Your task to perform on an android device: Go to eBay Image 0: 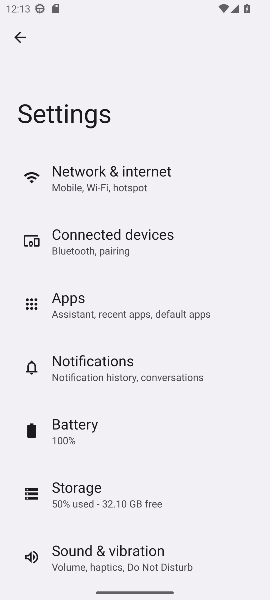
Step 0: press home button
Your task to perform on an android device: Go to eBay Image 1: 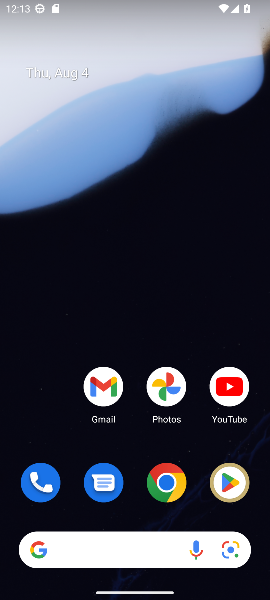
Step 1: click (181, 479)
Your task to perform on an android device: Go to eBay Image 2: 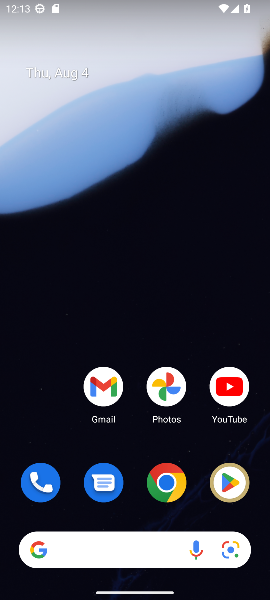
Step 2: click (181, 479)
Your task to perform on an android device: Go to eBay Image 3: 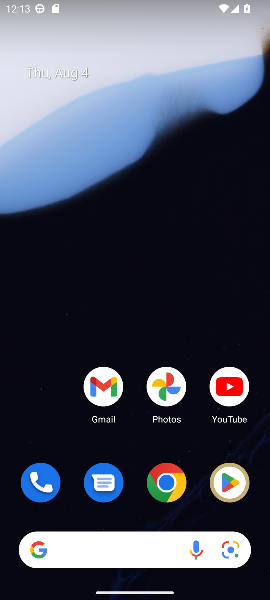
Step 3: click (167, 489)
Your task to perform on an android device: Go to eBay Image 4: 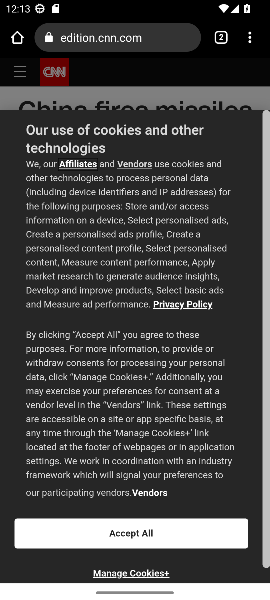
Step 4: click (214, 34)
Your task to perform on an android device: Go to eBay Image 5: 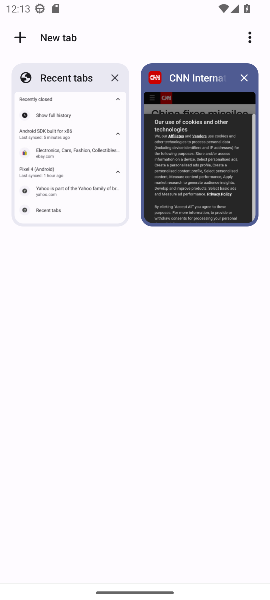
Step 5: click (21, 30)
Your task to perform on an android device: Go to eBay Image 6: 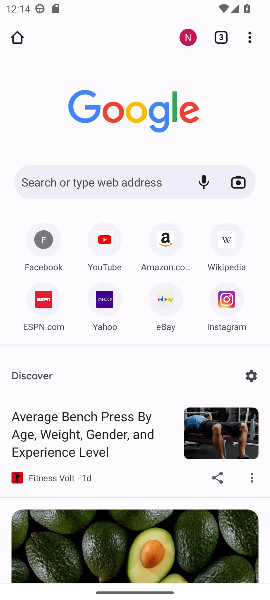
Step 6: click (157, 293)
Your task to perform on an android device: Go to eBay Image 7: 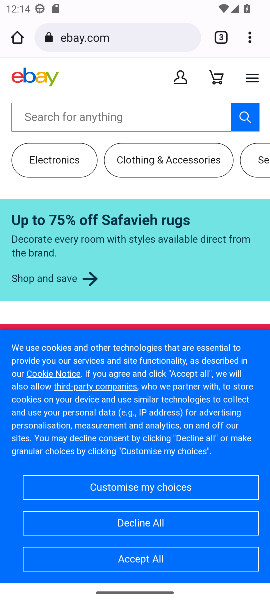
Step 7: task complete